Your task to perform on an android device: open app "Spotify" (install if not already installed), go to login, and select forgot password Image 0: 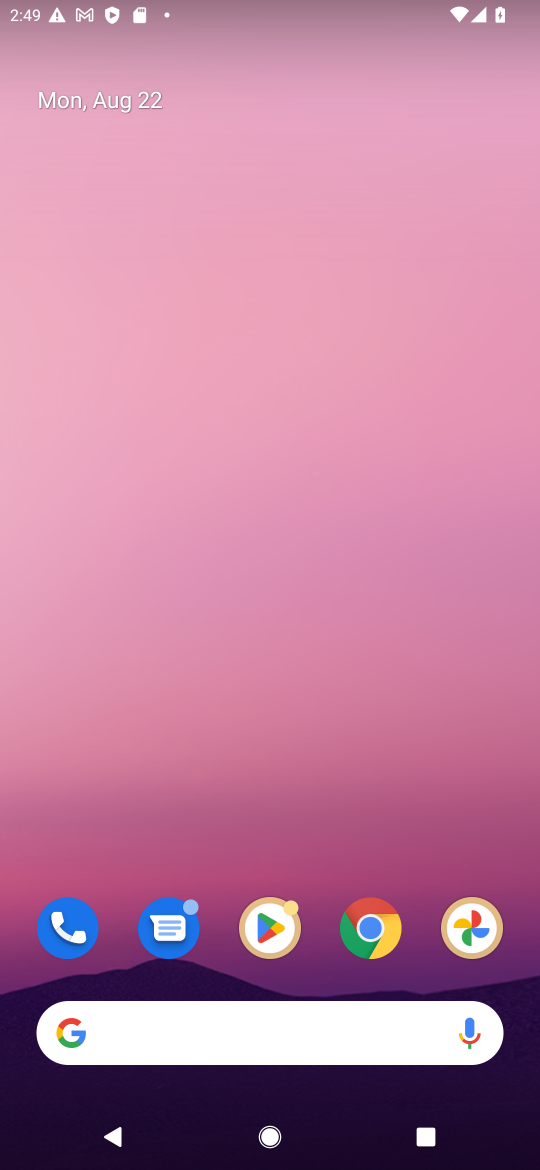
Step 0: click (259, 925)
Your task to perform on an android device: open app "Spotify" (install if not already installed), go to login, and select forgot password Image 1: 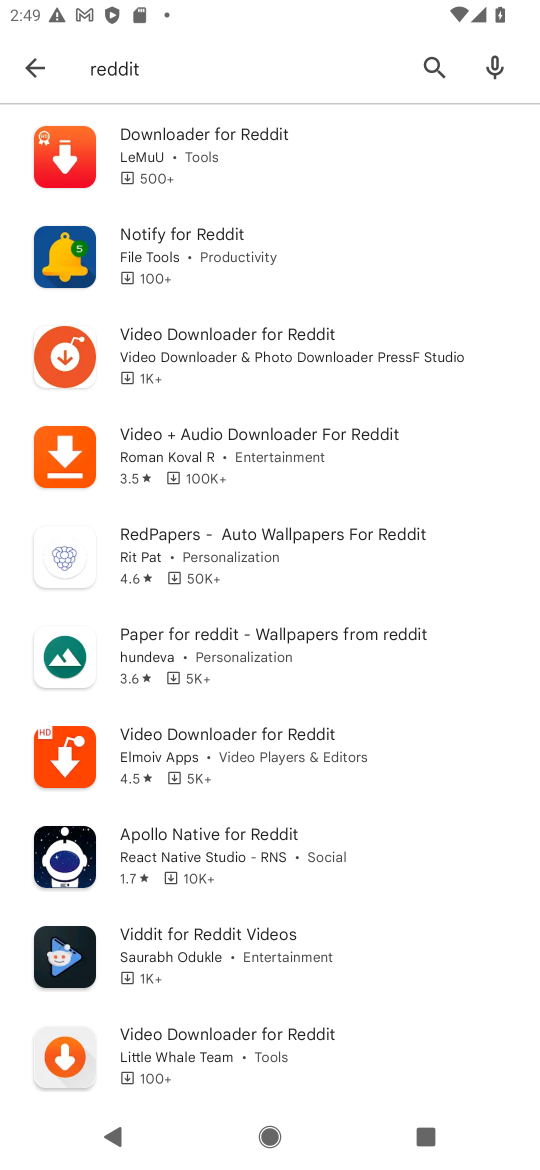
Step 1: click (178, 67)
Your task to perform on an android device: open app "Spotify" (install if not already installed), go to login, and select forgot password Image 2: 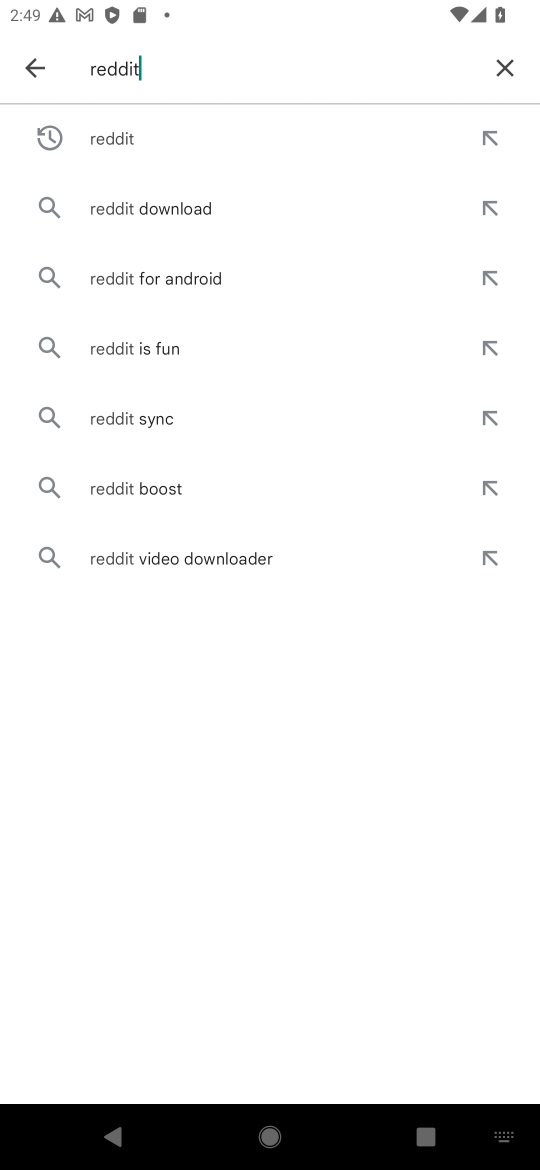
Step 2: click (505, 64)
Your task to perform on an android device: open app "Spotify" (install if not already installed), go to login, and select forgot password Image 3: 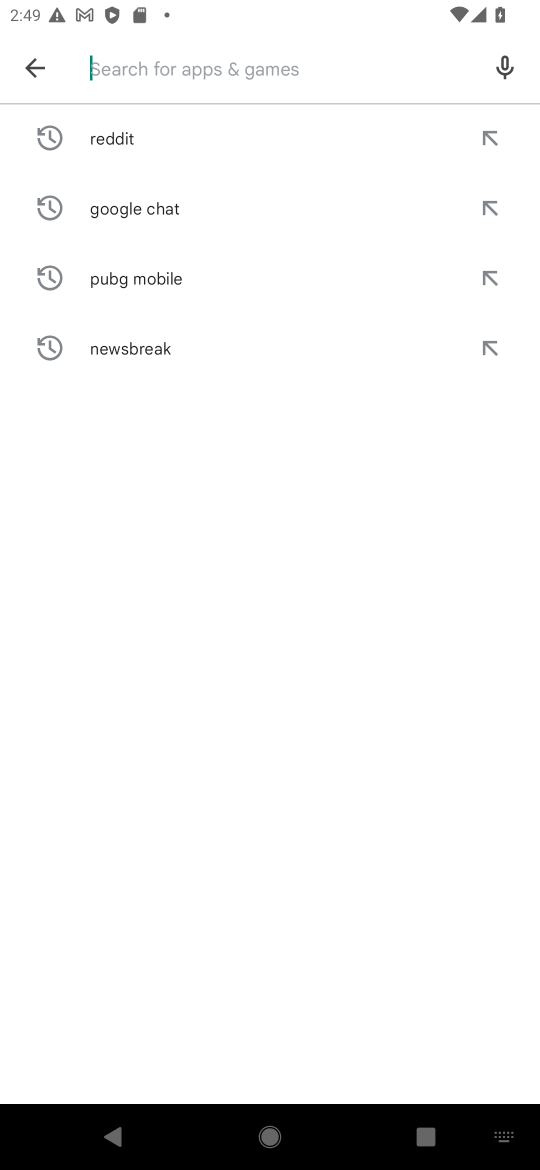
Step 3: type "Spotify"
Your task to perform on an android device: open app "Spotify" (install if not already installed), go to login, and select forgot password Image 4: 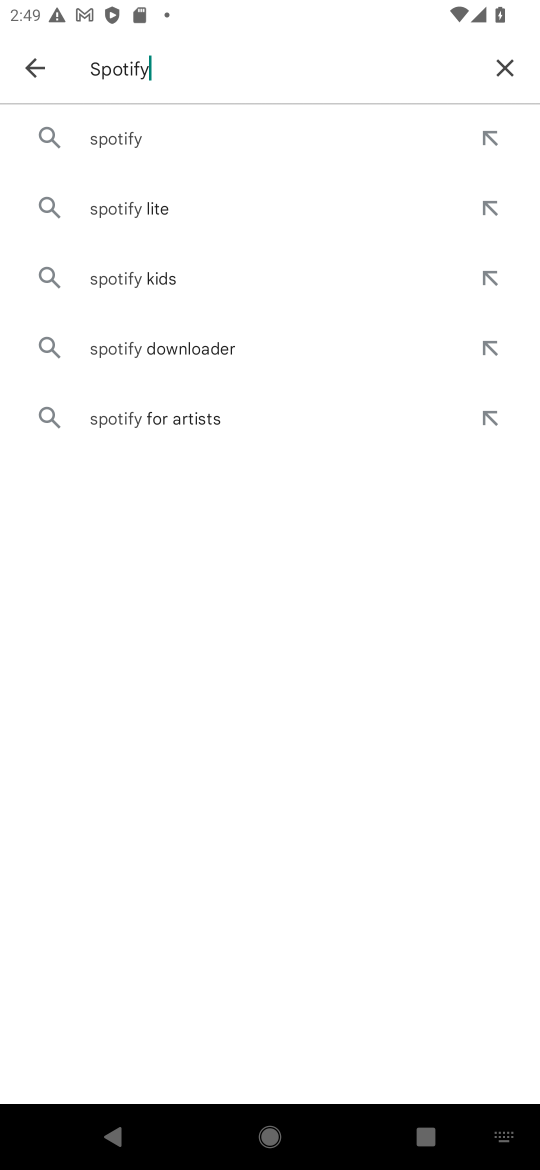
Step 4: click (127, 145)
Your task to perform on an android device: open app "Spotify" (install if not already installed), go to login, and select forgot password Image 5: 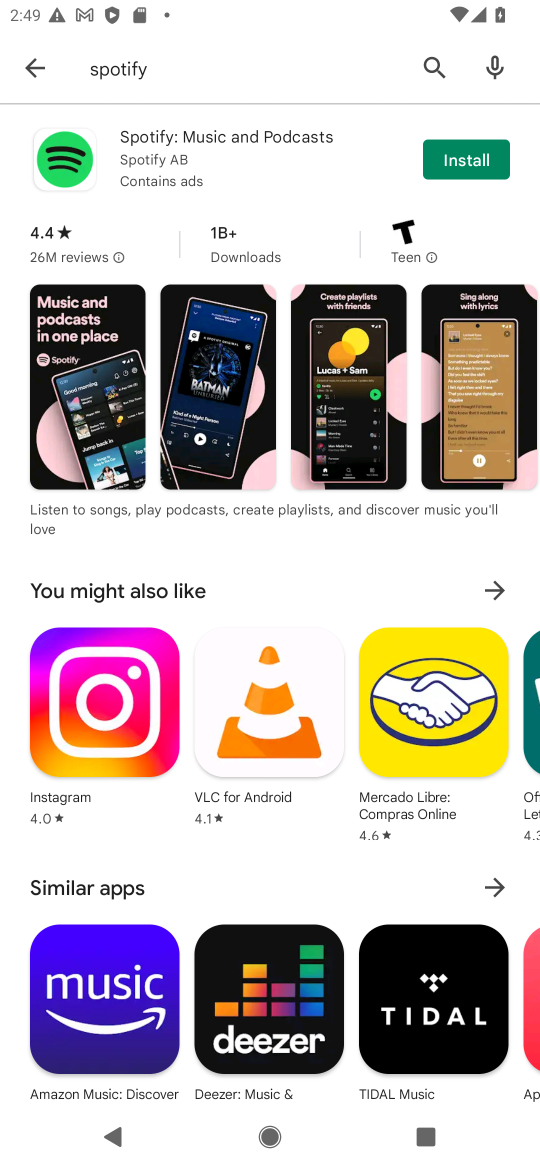
Step 5: click (489, 163)
Your task to perform on an android device: open app "Spotify" (install if not already installed), go to login, and select forgot password Image 6: 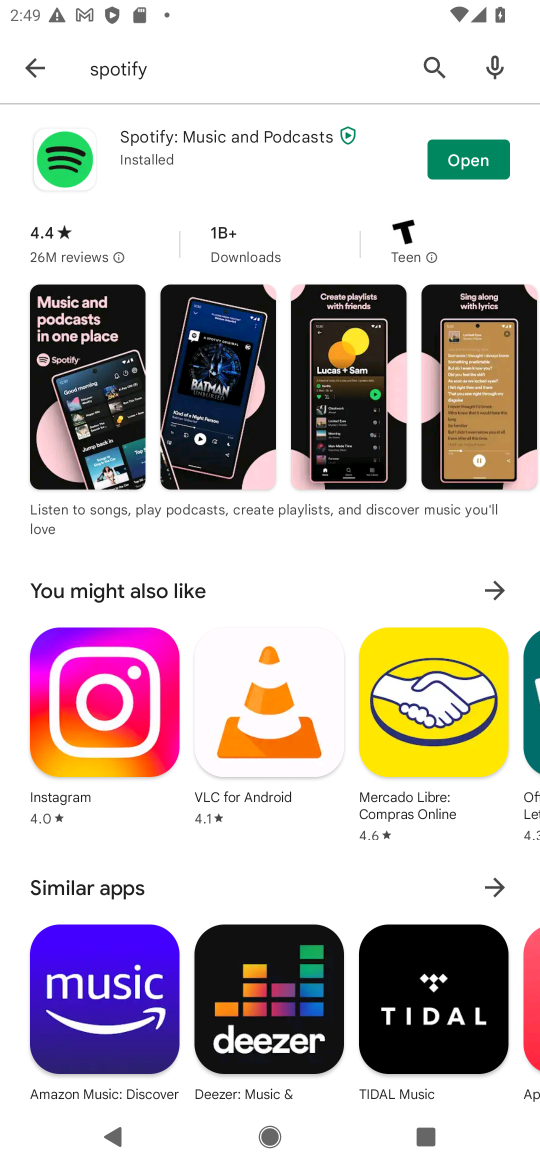
Step 6: click (465, 143)
Your task to perform on an android device: open app "Spotify" (install if not already installed), go to login, and select forgot password Image 7: 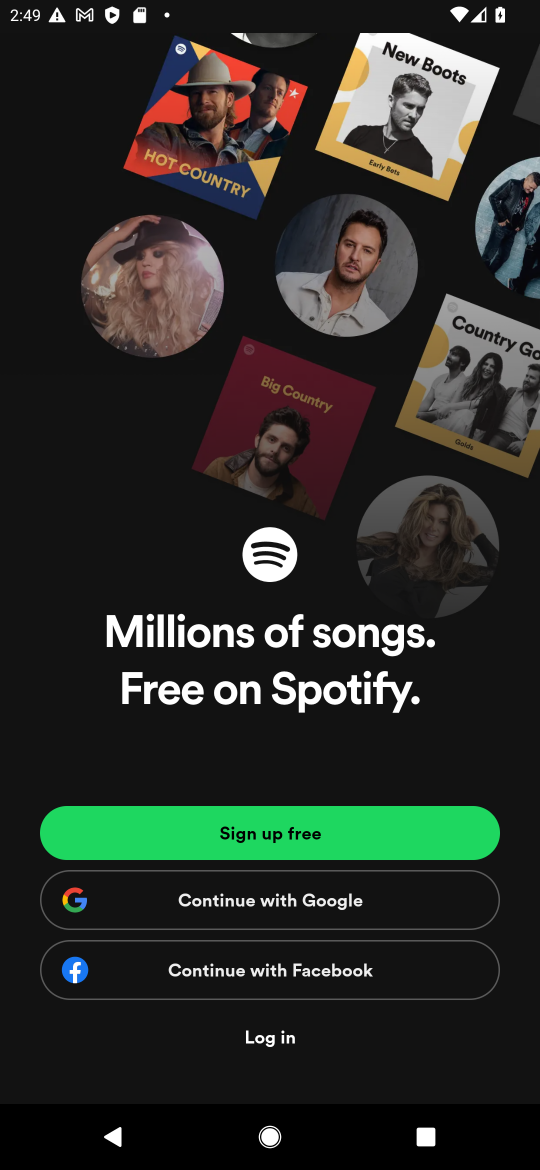
Step 7: click (262, 1033)
Your task to perform on an android device: open app "Spotify" (install if not already installed), go to login, and select forgot password Image 8: 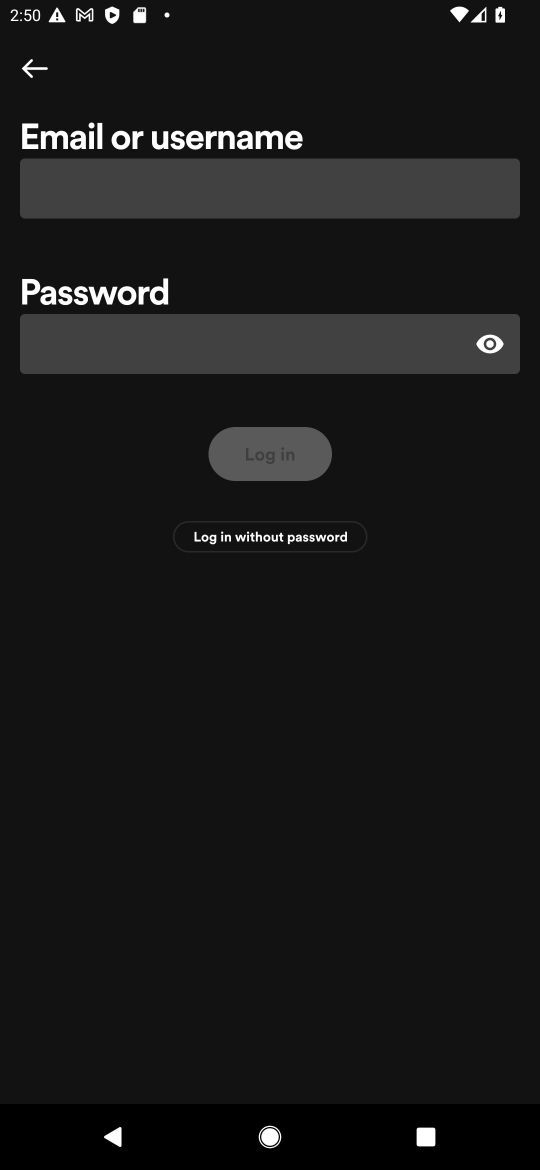
Step 8: task complete